Your task to perform on an android device: Turn off the flashlight Image 0: 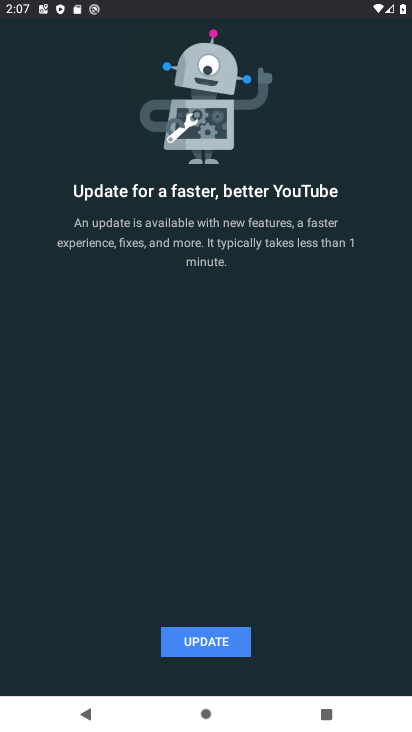
Step 0: drag from (203, 3) to (223, 367)
Your task to perform on an android device: Turn off the flashlight Image 1: 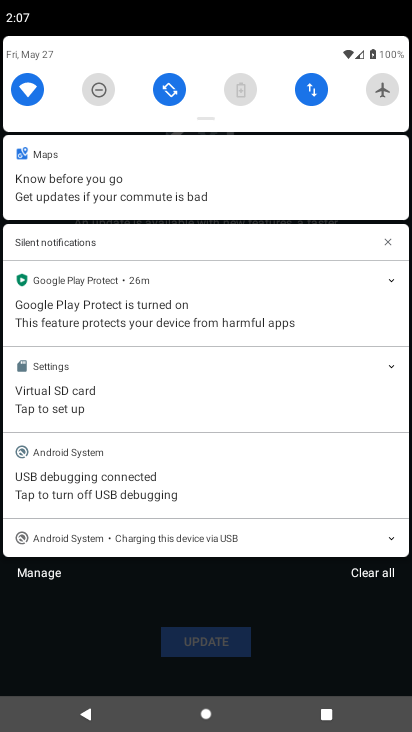
Step 1: task complete